Your task to perform on an android device: manage bookmarks in the chrome app Image 0: 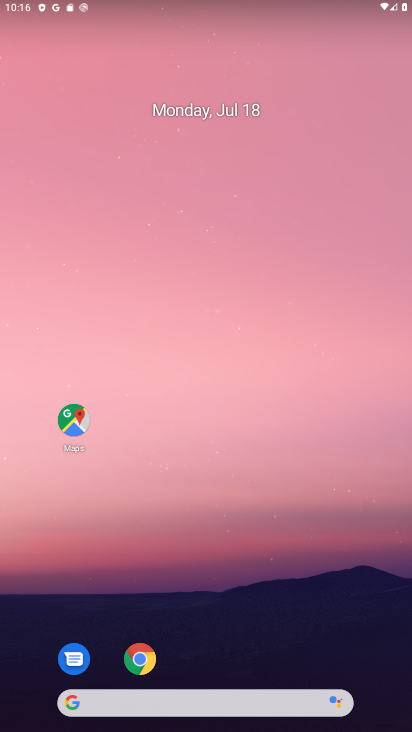
Step 0: drag from (221, 663) to (242, 22)
Your task to perform on an android device: manage bookmarks in the chrome app Image 1: 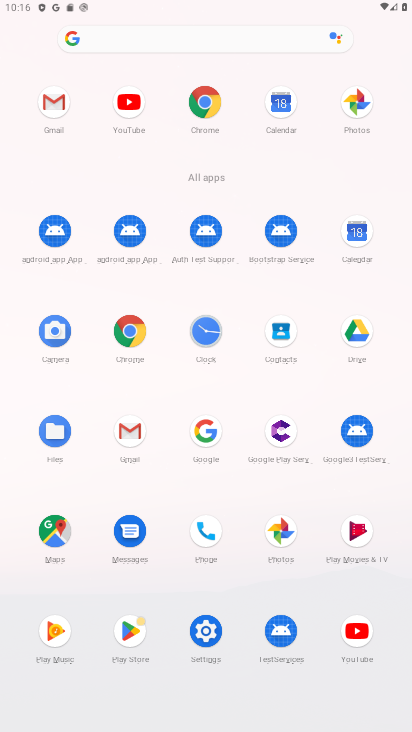
Step 1: click (128, 321)
Your task to perform on an android device: manage bookmarks in the chrome app Image 2: 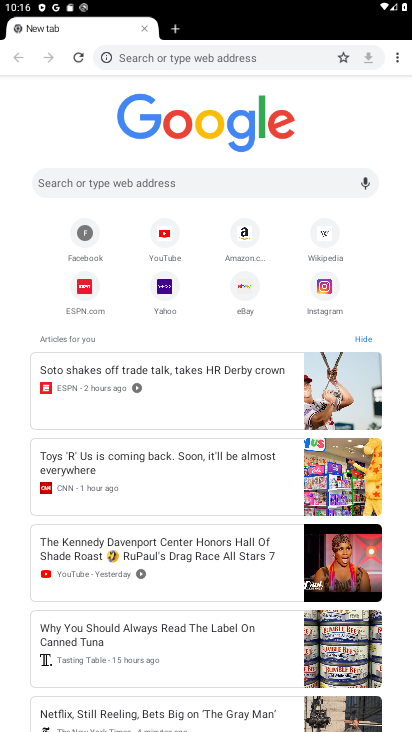
Step 2: click (397, 55)
Your task to perform on an android device: manage bookmarks in the chrome app Image 3: 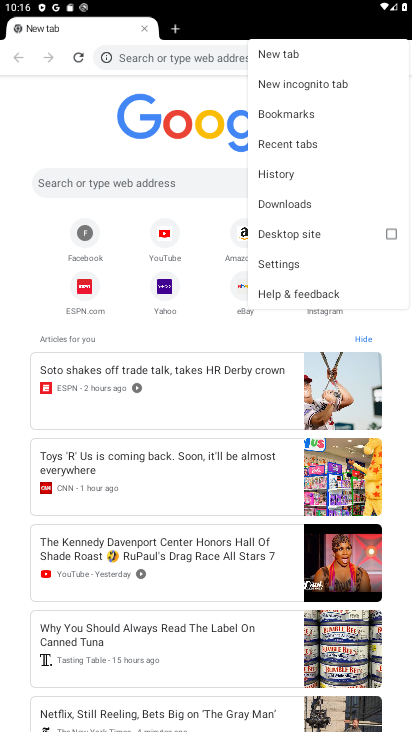
Step 3: click (290, 115)
Your task to perform on an android device: manage bookmarks in the chrome app Image 4: 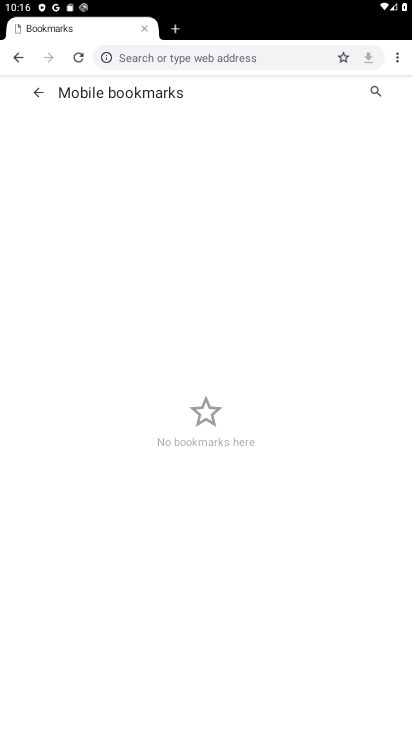
Step 4: task complete